Your task to perform on an android device: turn off wifi Image 0: 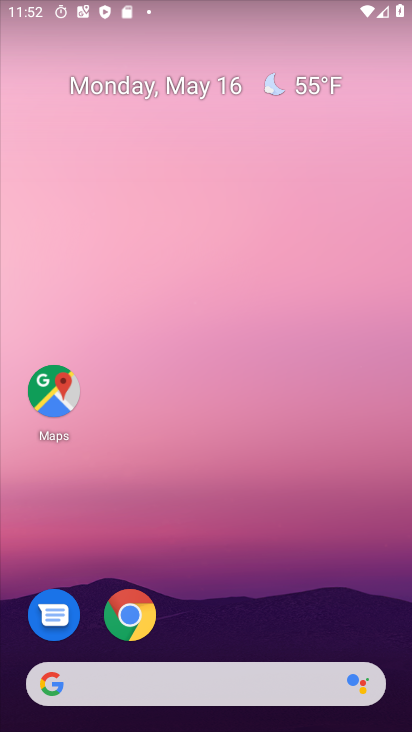
Step 0: drag from (178, 9) to (170, 390)
Your task to perform on an android device: turn off wifi Image 1: 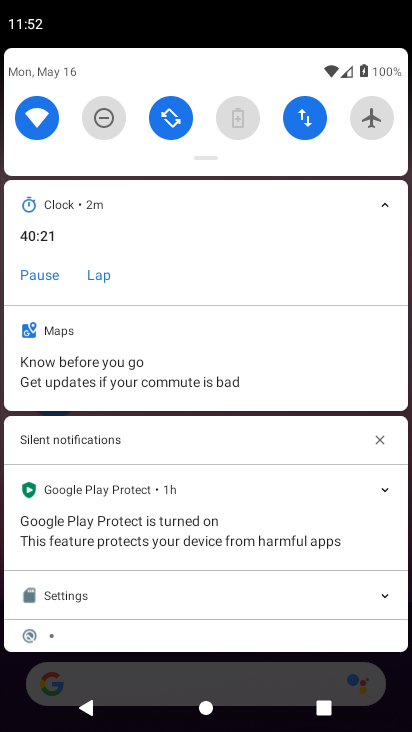
Step 1: click (32, 120)
Your task to perform on an android device: turn off wifi Image 2: 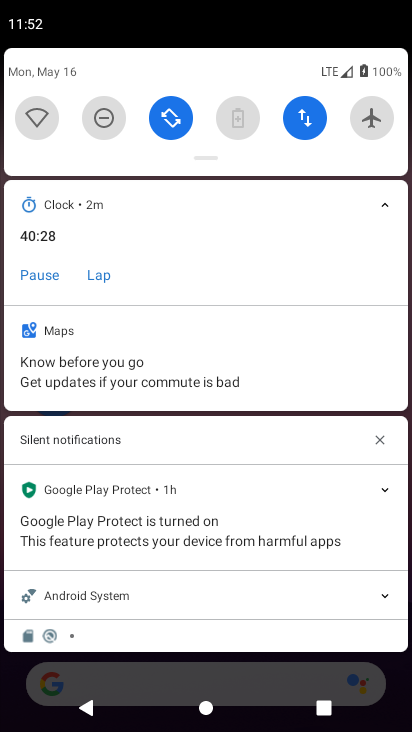
Step 2: task complete